Your task to perform on an android device: turn off picture-in-picture Image 0: 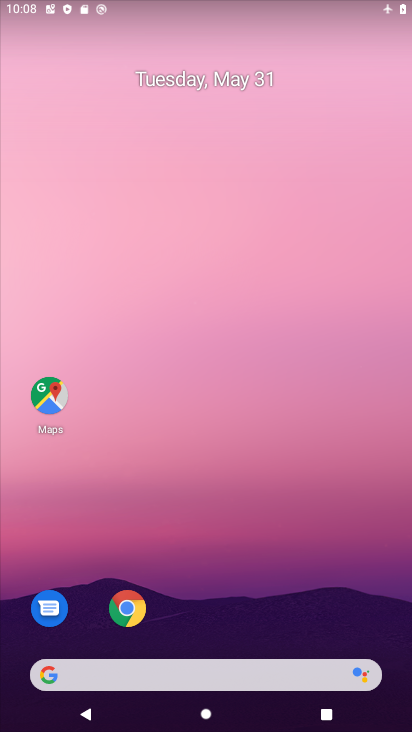
Step 0: drag from (237, 640) to (360, 29)
Your task to perform on an android device: turn off picture-in-picture Image 1: 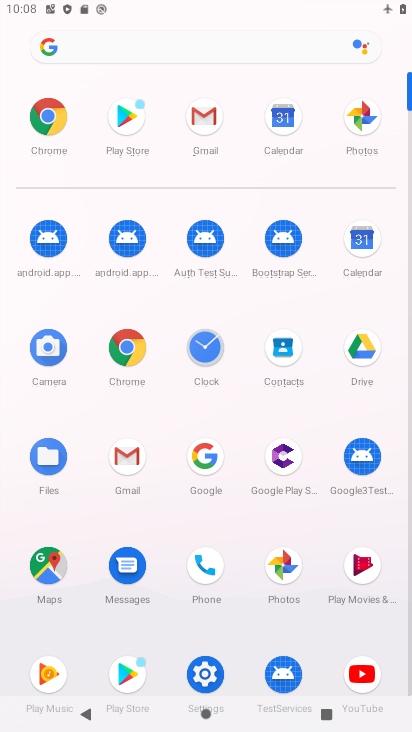
Step 1: click (201, 679)
Your task to perform on an android device: turn off picture-in-picture Image 2: 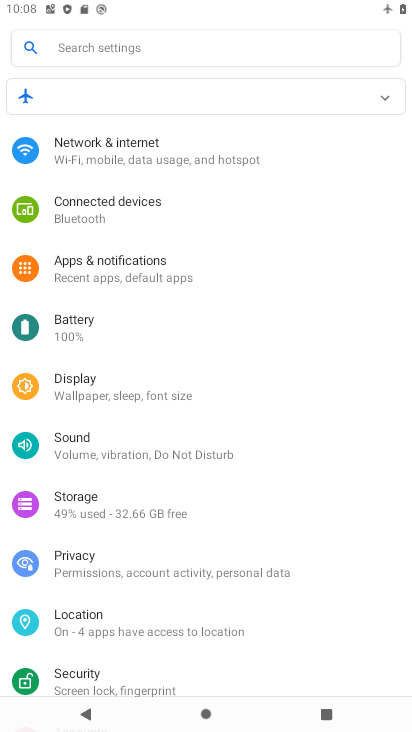
Step 2: click (96, 272)
Your task to perform on an android device: turn off picture-in-picture Image 3: 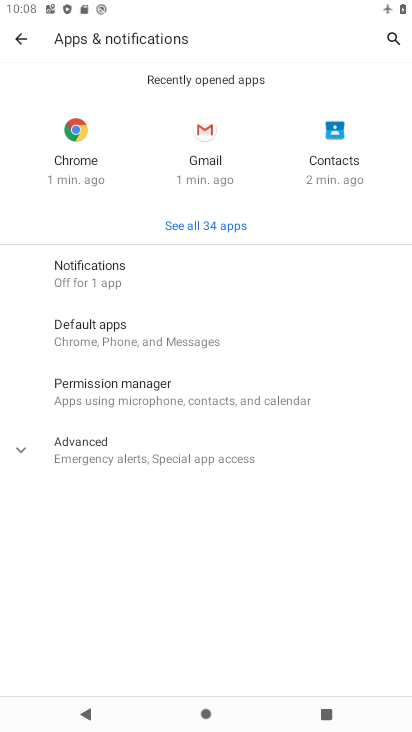
Step 3: click (122, 447)
Your task to perform on an android device: turn off picture-in-picture Image 4: 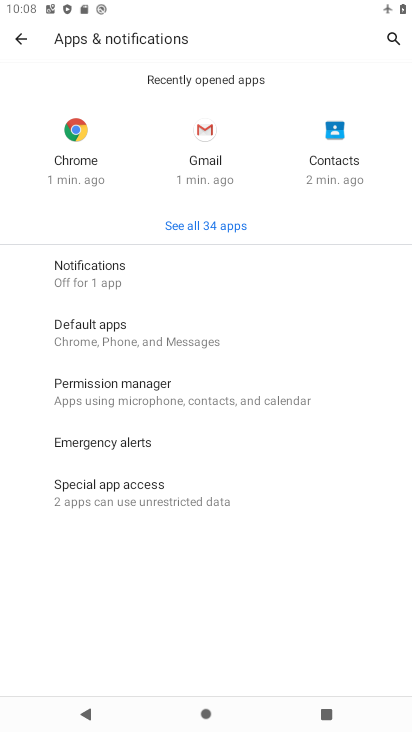
Step 4: click (127, 498)
Your task to perform on an android device: turn off picture-in-picture Image 5: 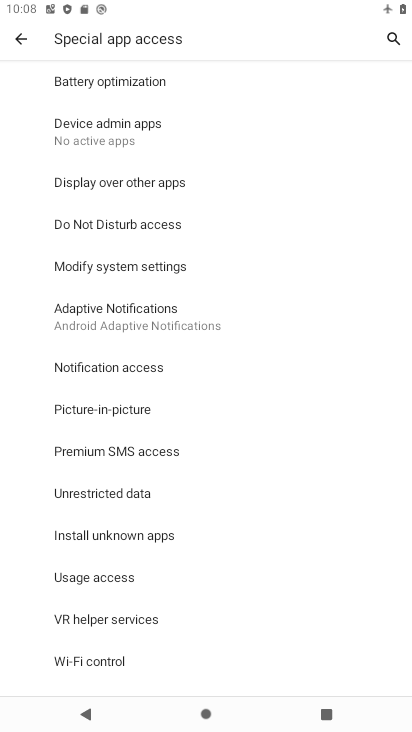
Step 5: click (133, 414)
Your task to perform on an android device: turn off picture-in-picture Image 6: 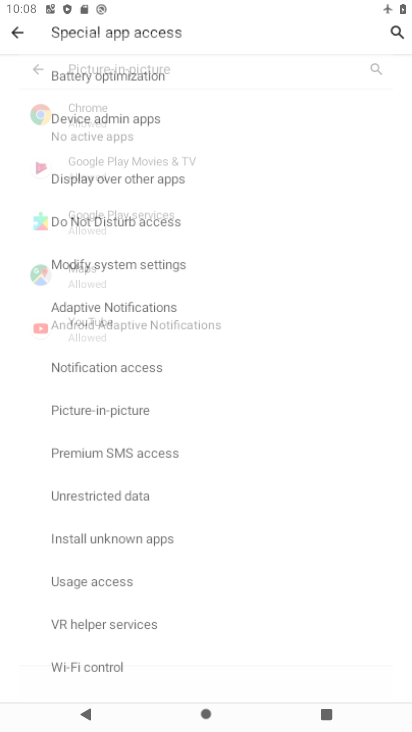
Step 6: task complete